Your task to perform on an android device: Open eBay Image 0: 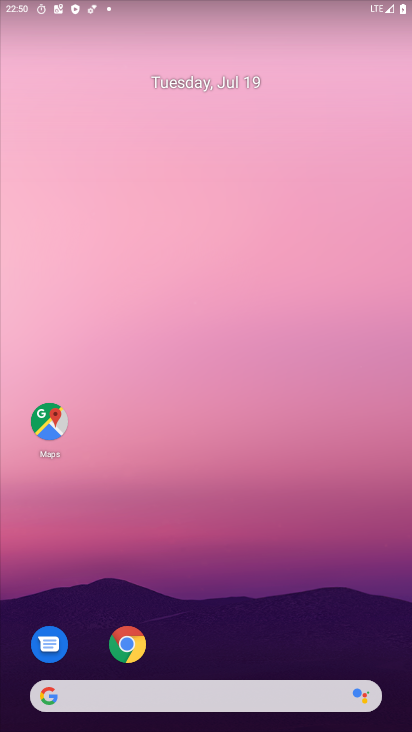
Step 0: click (136, 658)
Your task to perform on an android device: Open eBay Image 1: 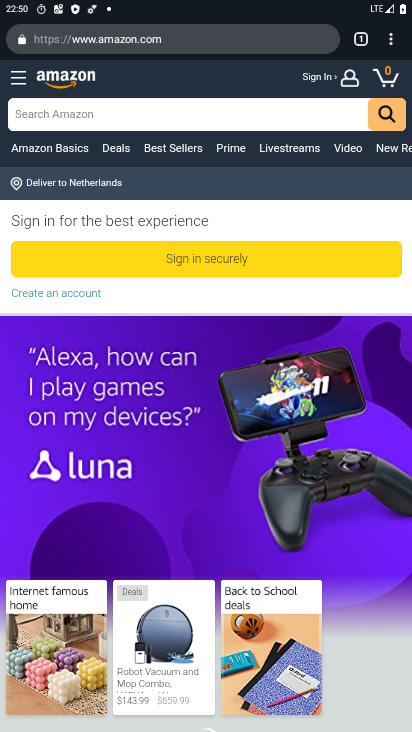
Step 1: click (200, 44)
Your task to perform on an android device: Open eBay Image 2: 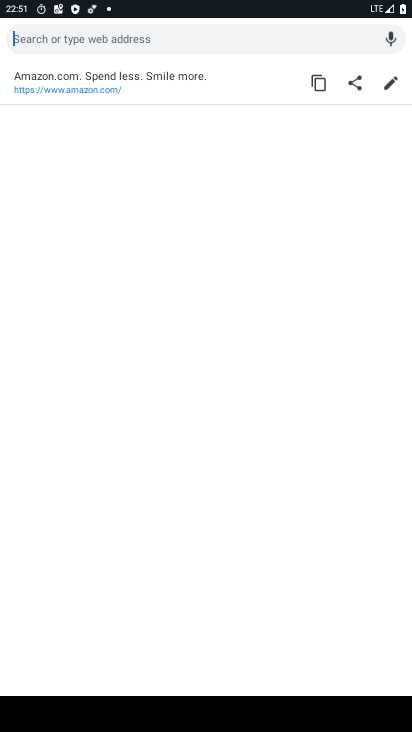
Step 2: type "eBay"
Your task to perform on an android device: Open eBay Image 3: 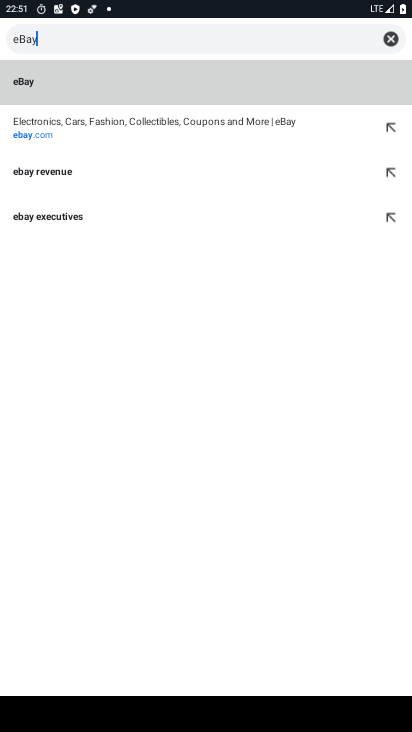
Step 3: click (343, 121)
Your task to perform on an android device: Open eBay Image 4: 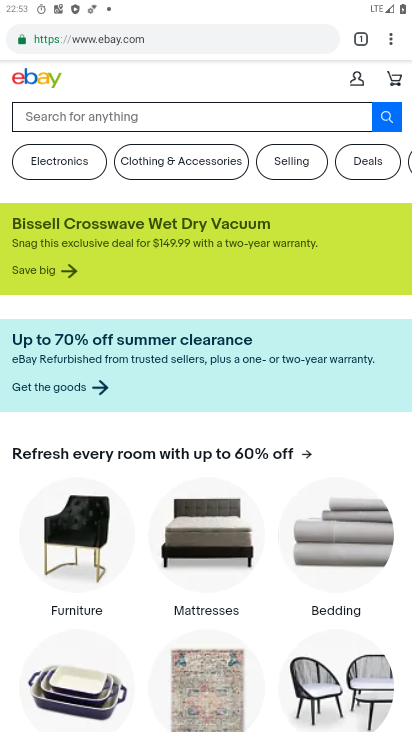
Step 4: task complete